Your task to perform on an android device: Is it going to rain today? Image 0: 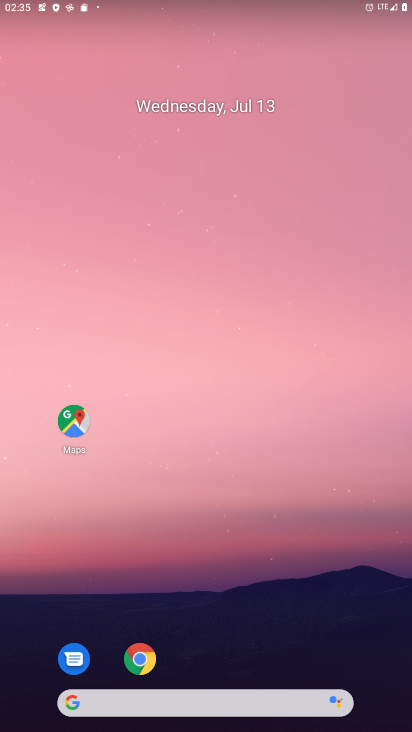
Step 0: drag from (189, 729) to (171, 78)
Your task to perform on an android device: Is it going to rain today? Image 1: 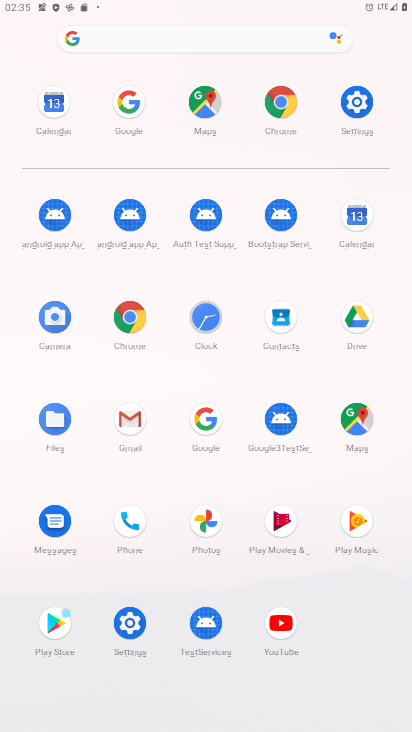
Step 1: click (205, 420)
Your task to perform on an android device: Is it going to rain today? Image 2: 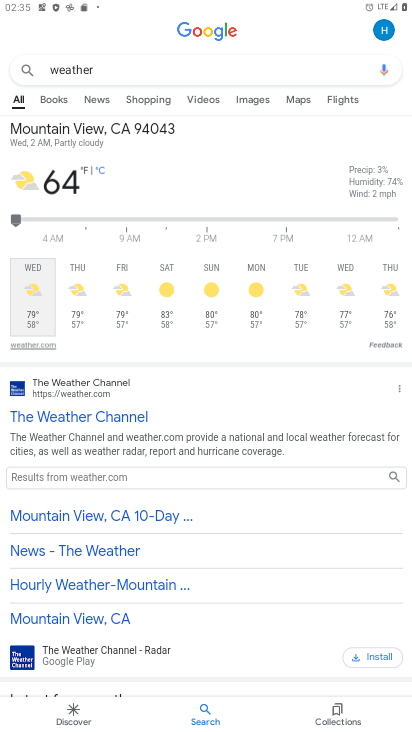
Step 2: task complete